Your task to perform on an android device: change the clock style Image 0: 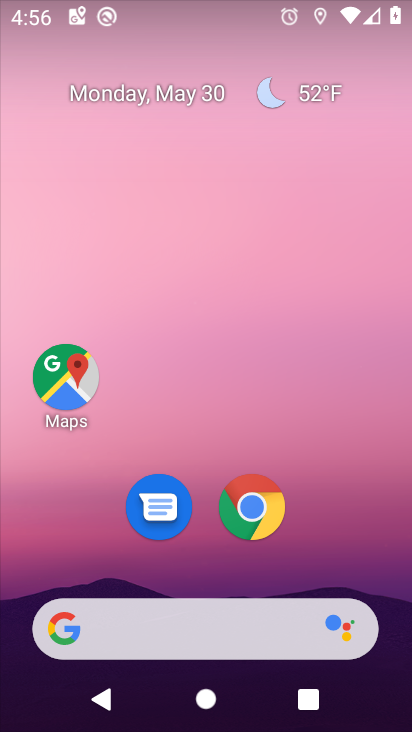
Step 0: press home button
Your task to perform on an android device: change the clock style Image 1: 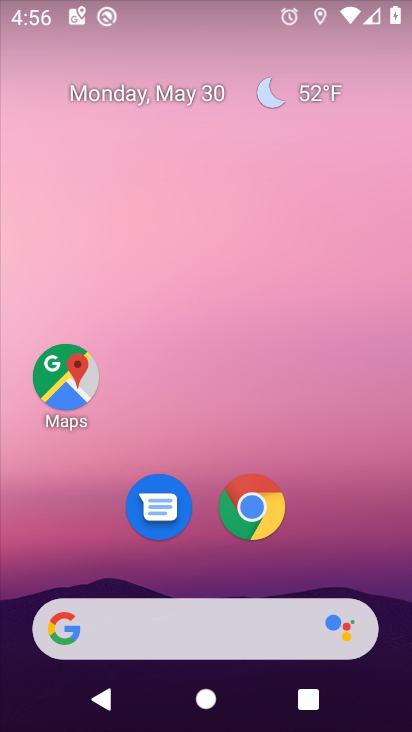
Step 1: drag from (358, 529) to (278, 54)
Your task to perform on an android device: change the clock style Image 2: 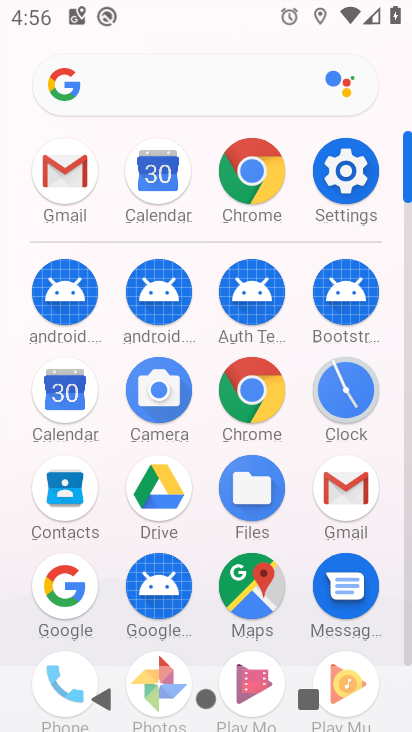
Step 2: click (338, 416)
Your task to perform on an android device: change the clock style Image 3: 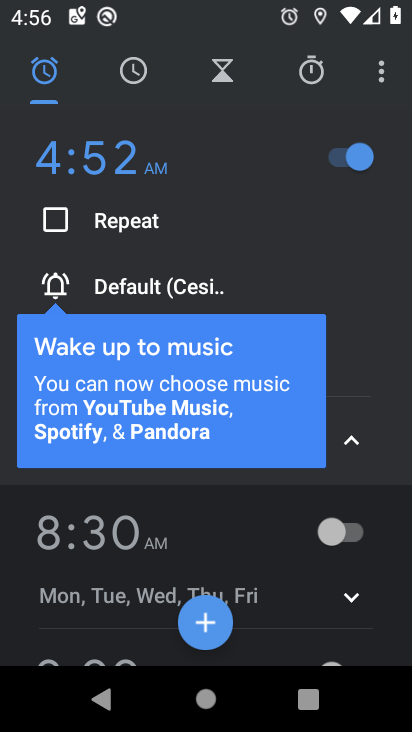
Step 3: click (385, 78)
Your task to perform on an android device: change the clock style Image 4: 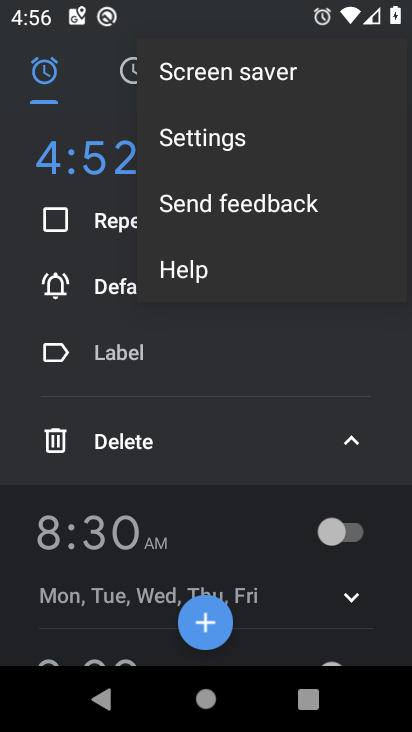
Step 4: click (224, 145)
Your task to perform on an android device: change the clock style Image 5: 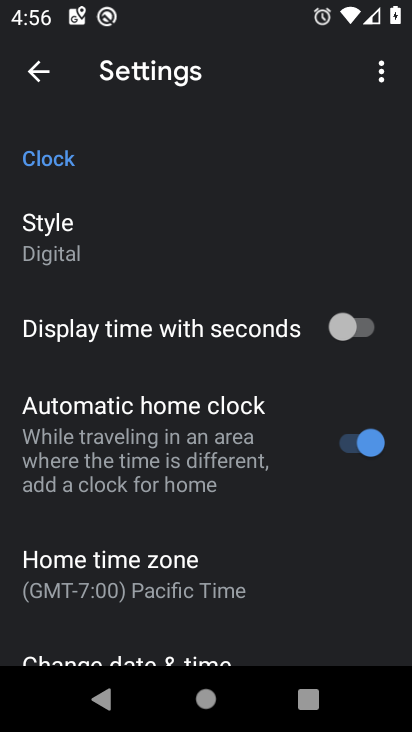
Step 5: click (91, 229)
Your task to perform on an android device: change the clock style Image 6: 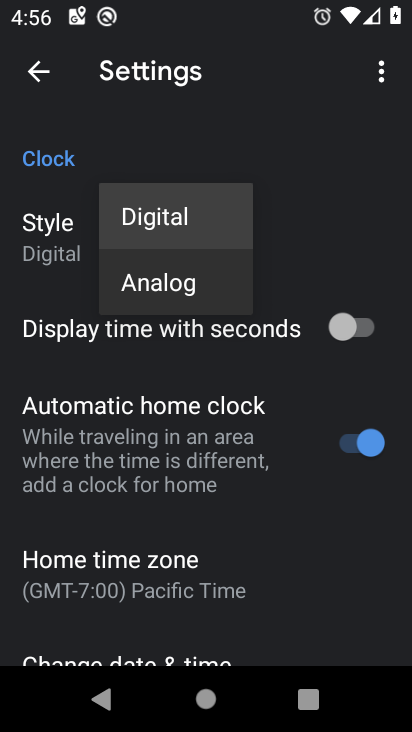
Step 6: click (91, 258)
Your task to perform on an android device: change the clock style Image 7: 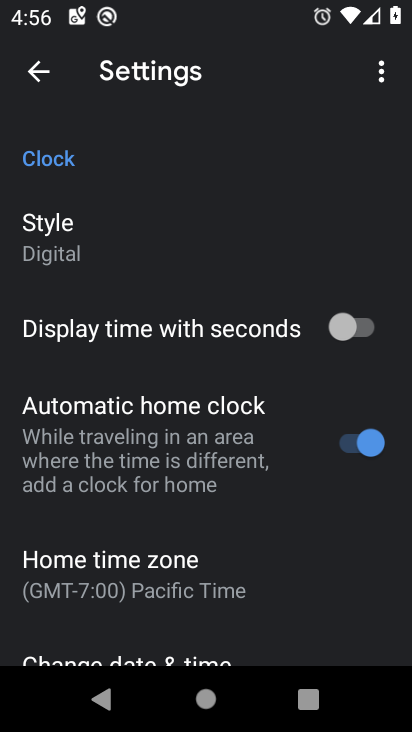
Step 7: click (91, 258)
Your task to perform on an android device: change the clock style Image 8: 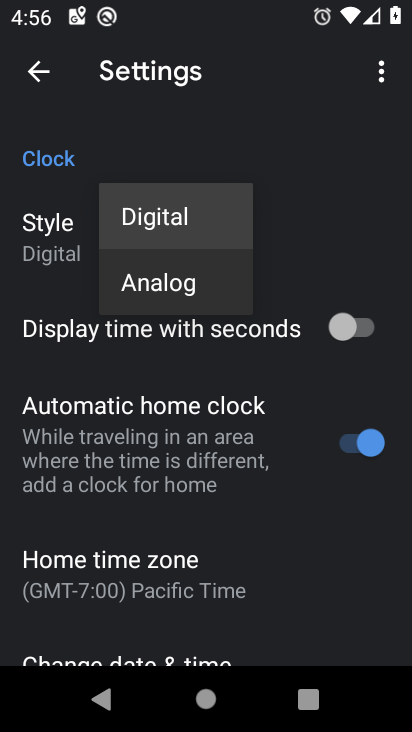
Step 8: click (162, 285)
Your task to perform on an android device: change the clock style Image 9: 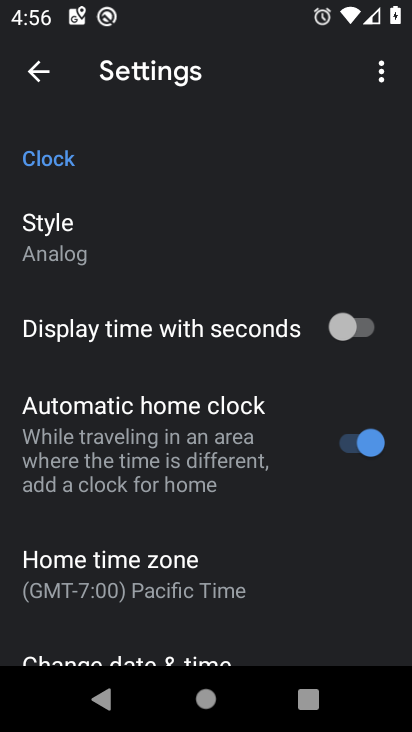
Step 9: task complete